Your task to perform on an android device: open app "Microsoft Outlook" (install if not already installed) Image 0: 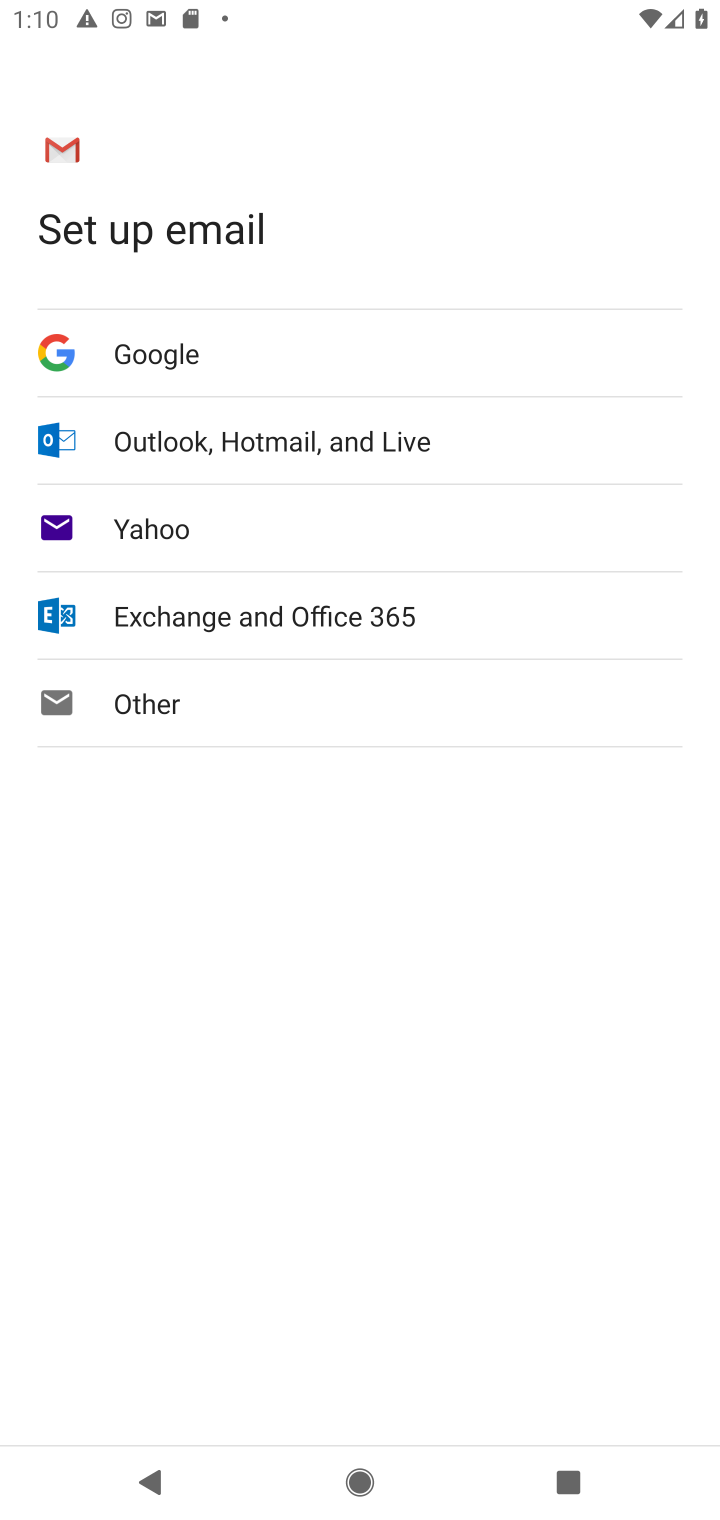
Step 0: press home button
Your task to perform on an android device: open app "Microsoft Outlook" (install if not already installed) Image 1: 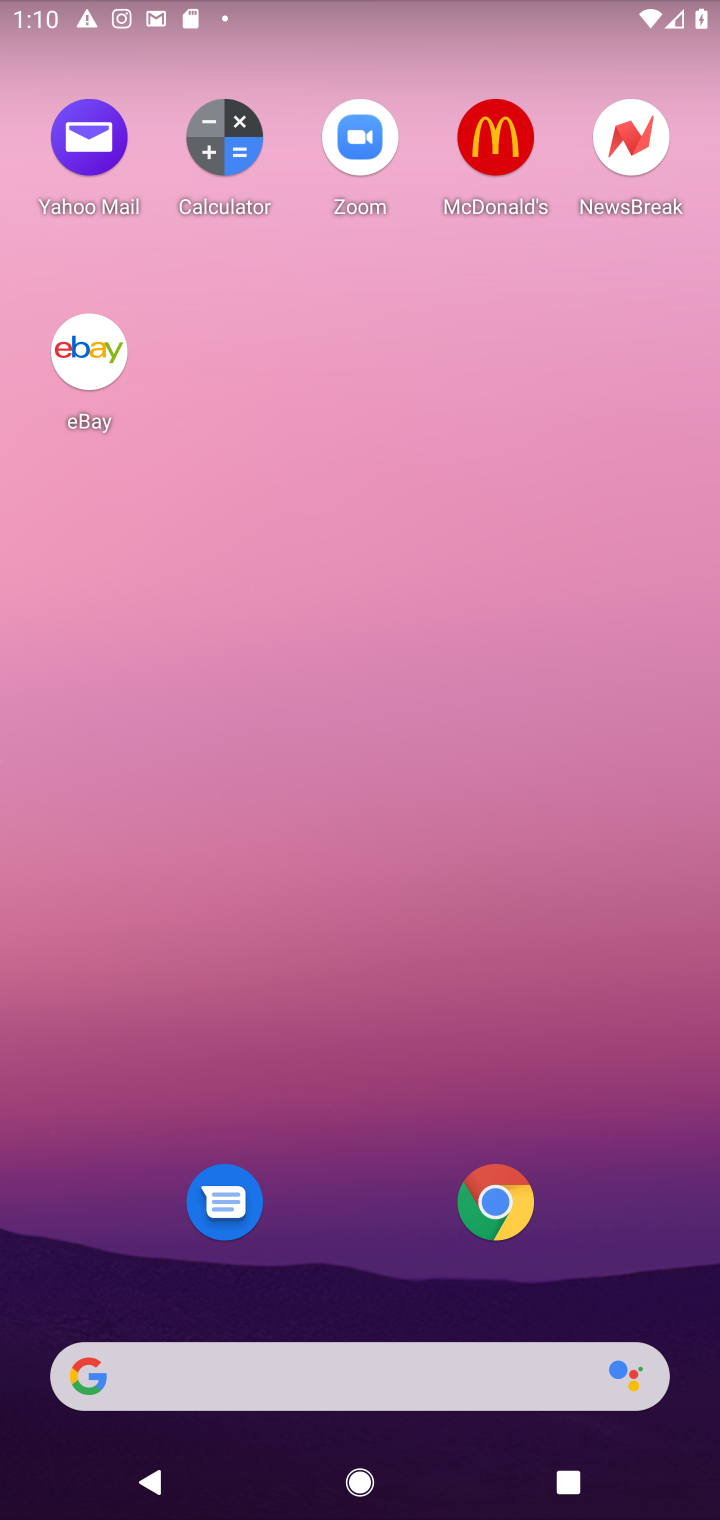
Step 1: drag from (357, 1317) to (296, 204)
Your task to perform on an android device: open app "Microsoft Outlook" (install if not already installed) Image 2: 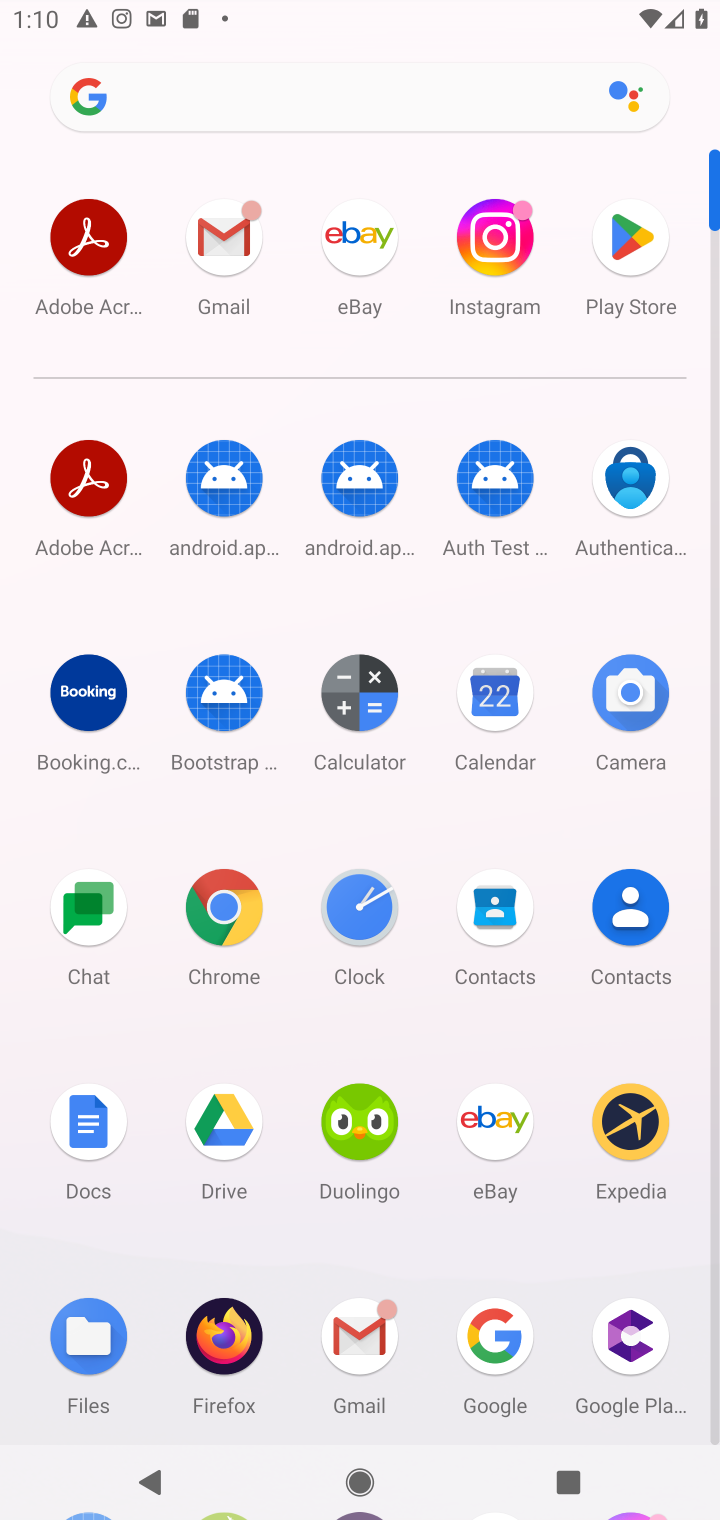
Step 2: click (635, 232)
Your task to perform on an android device: open app "Microsoft Outlook" (install if not already installed) Image 3: 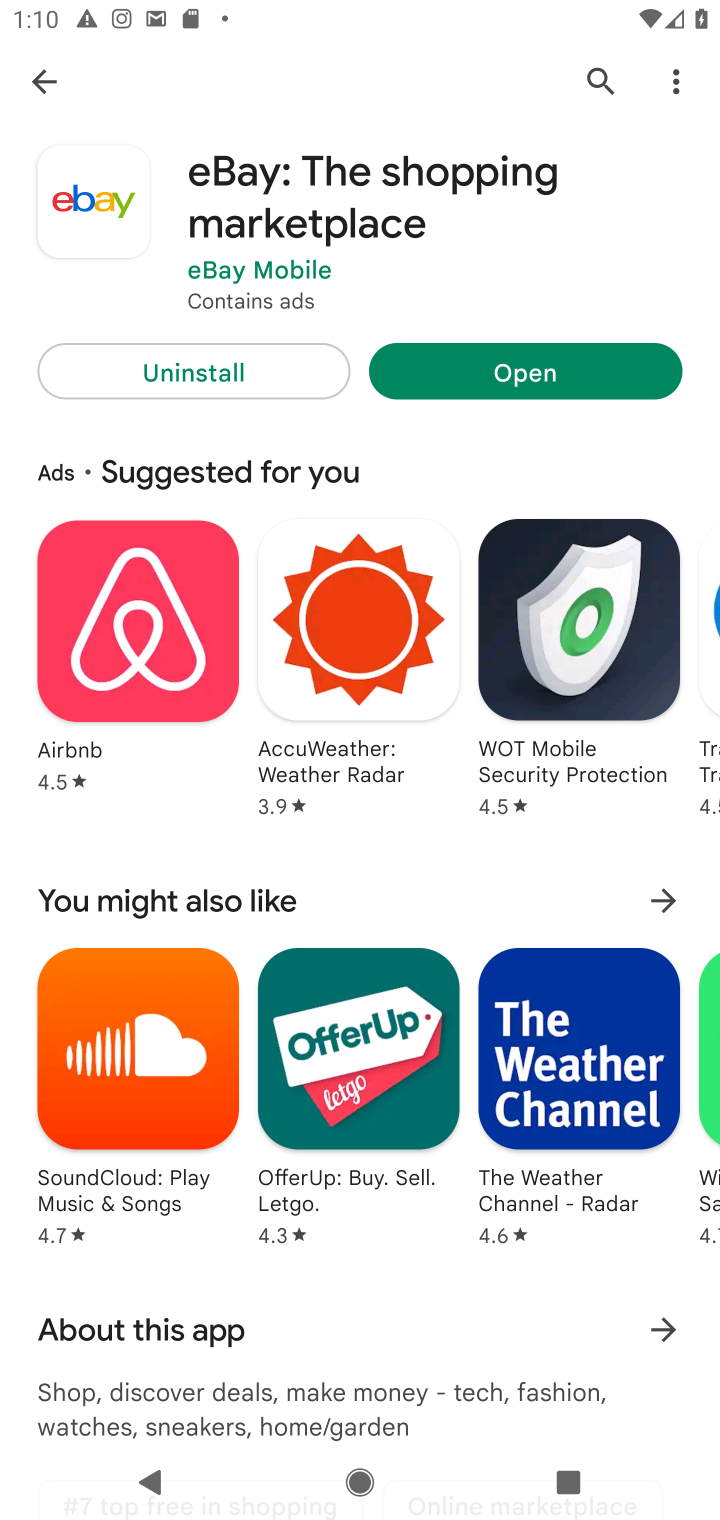
Step 3: click (591, 68)
Your task to perform on an android device: open app "Microsoft Outlook" (install if not already installed) Image 4: 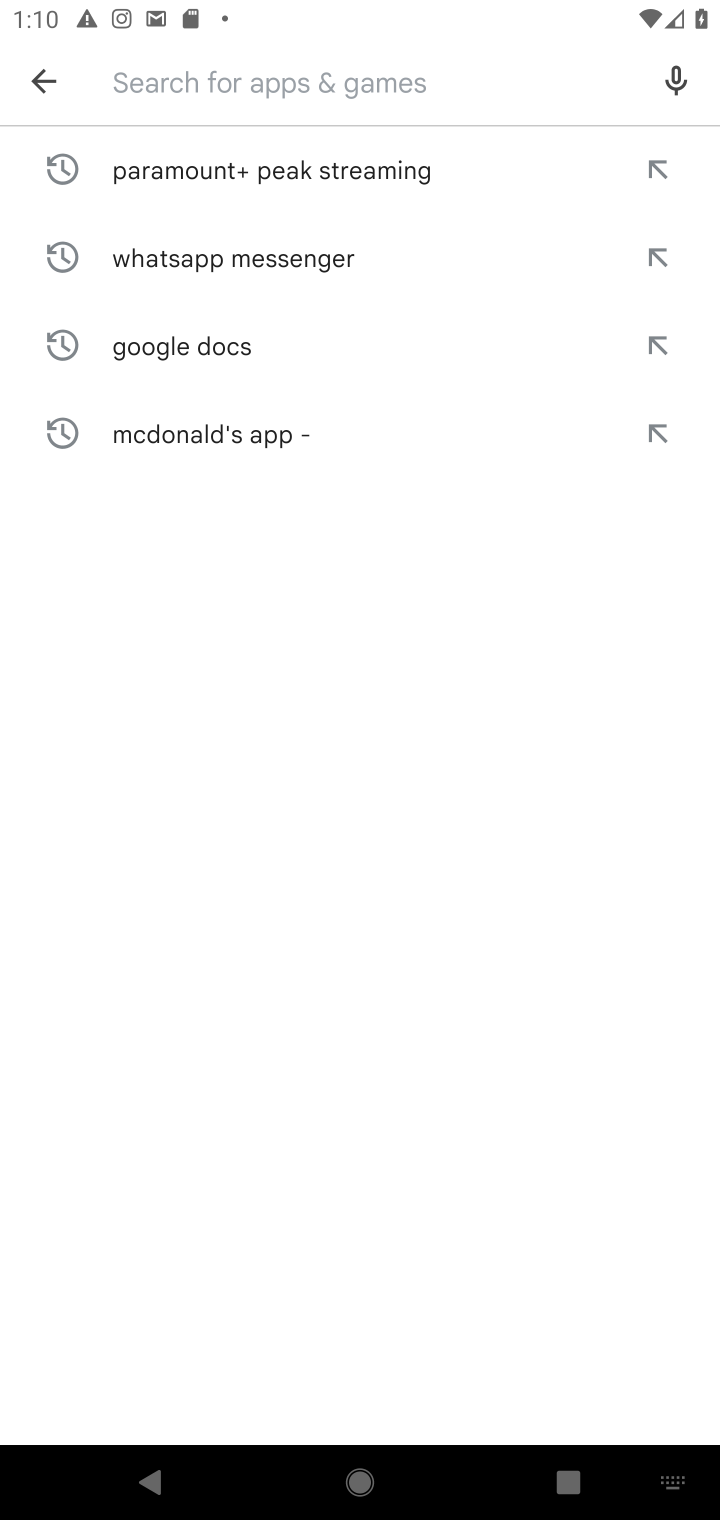
Step 4: type "Microsoft Outlook"
Your task to perform on an android device: open app "Microsoft Outlook" (install if not already installed) Image 5: 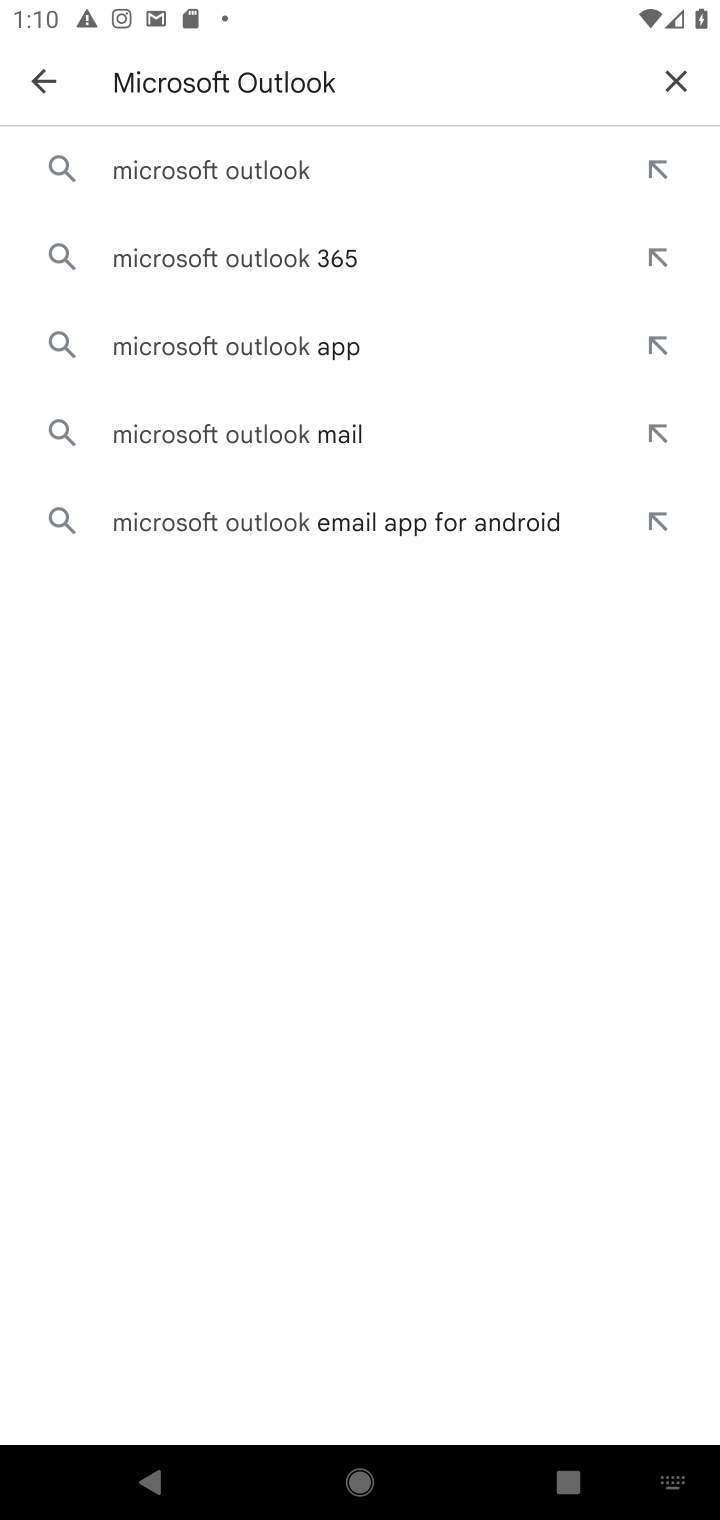
Step 5: click (210, 169)
Your task to perform on an android device: open app "Microsoft Outlook" (install if not already installed) Image 6: 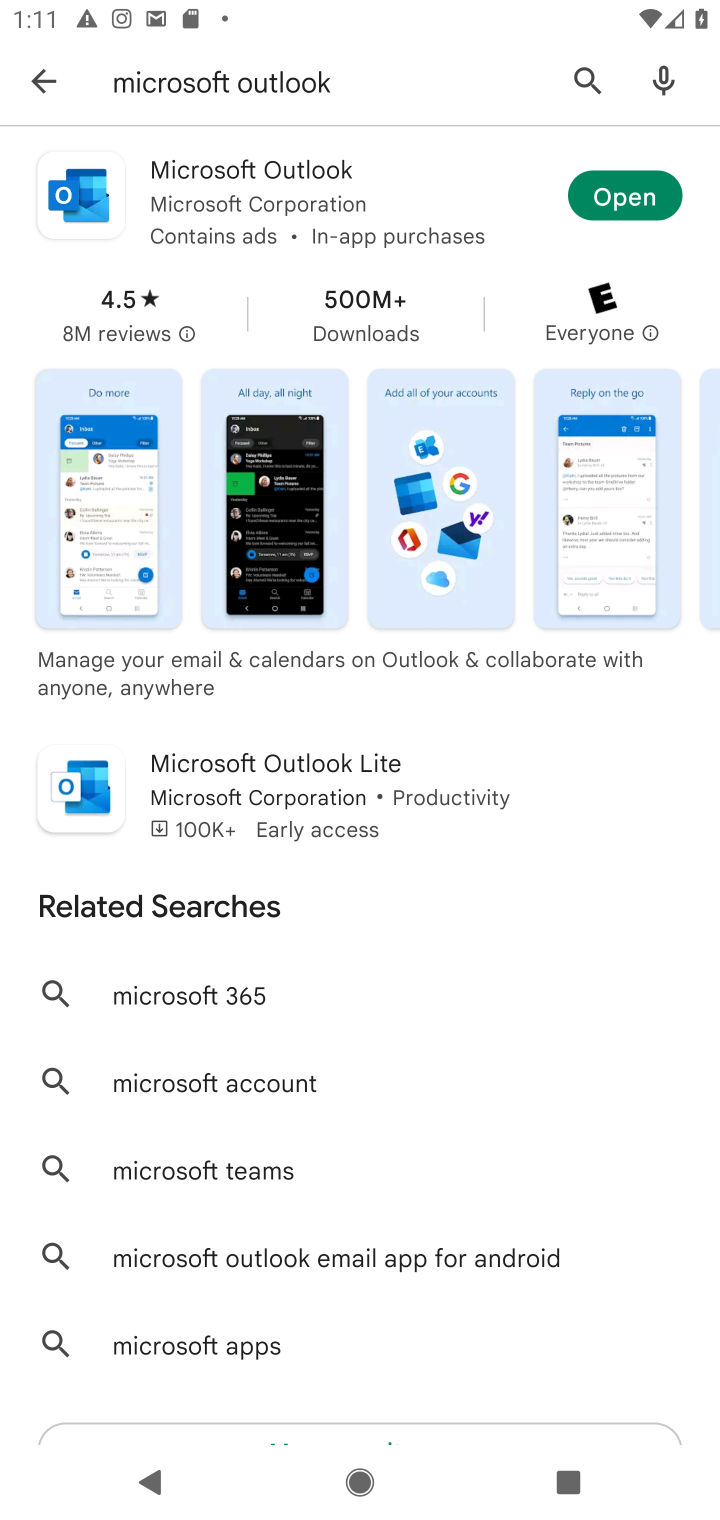
Step 6: click (633, 188)
Your task to perform on an android device: open app "Microsoft Outlook" (install if not already installed) Image 7: 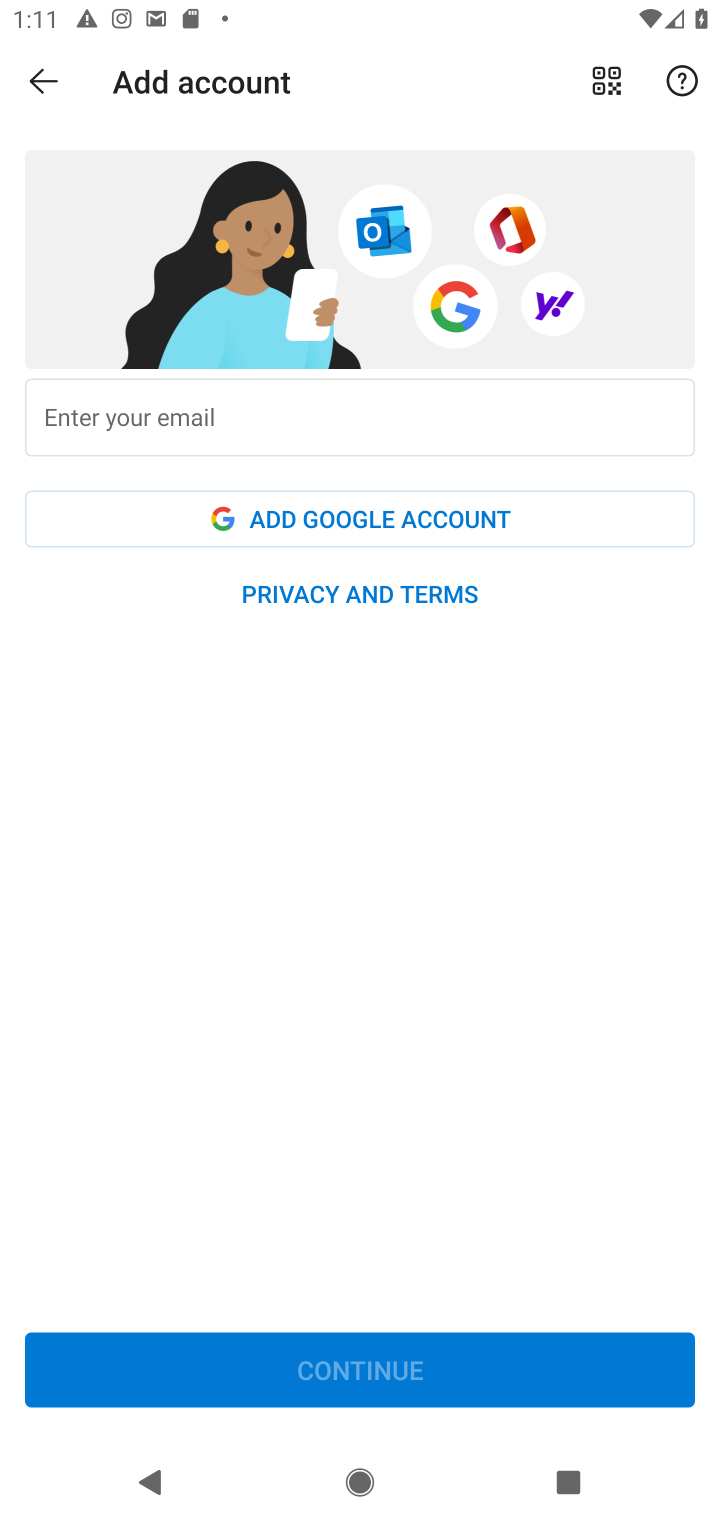
Step 7: task complete